Your task to perform on an android device: Search for Mexican restaurants on Maps Image 0: 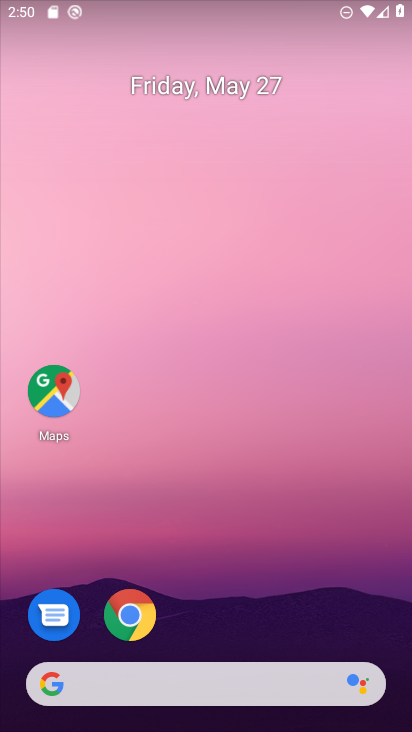
Step 0: click (135, 620)
Your task to perform on an android device: Search for Mexican restaurants on Maps Image 1: 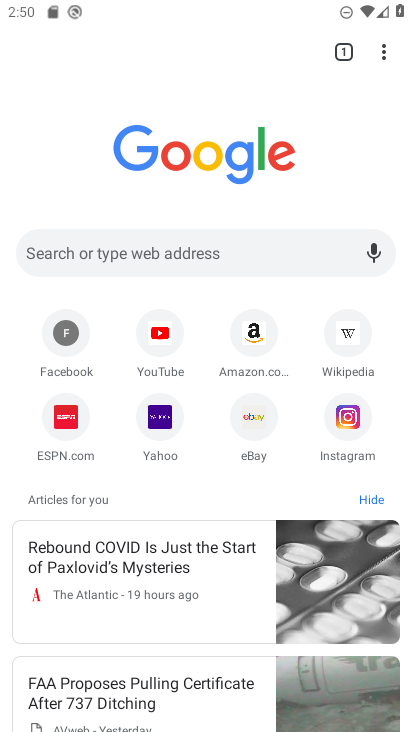
Step 1: press home button
Your task to perform on an android device: Search for Mexican restaurants on Maps Image 2: 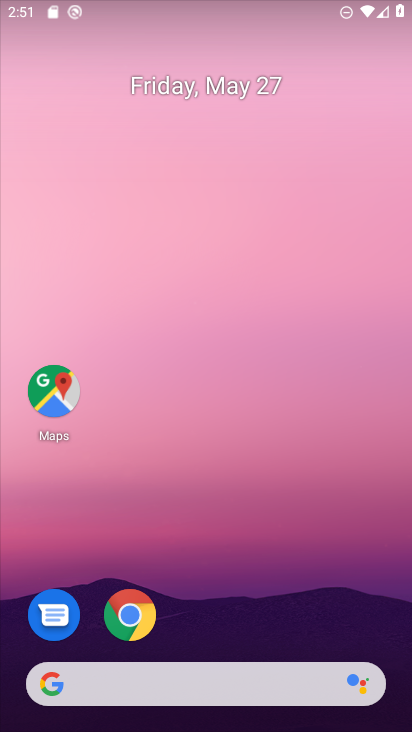
Step 2: click (56, 401)
Your task to perform on an android device: Search for Mexican restaurants on Maps Image 3: 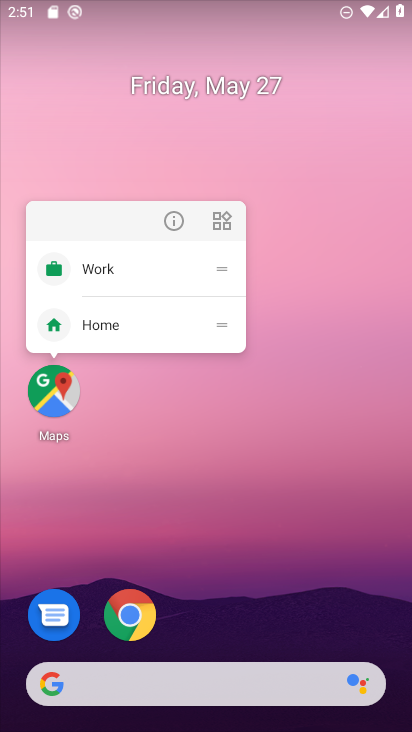
Step 3: click (61, 399)
Your task to perform on an android device: Search for Mexican restaurants on Maps Image 4: 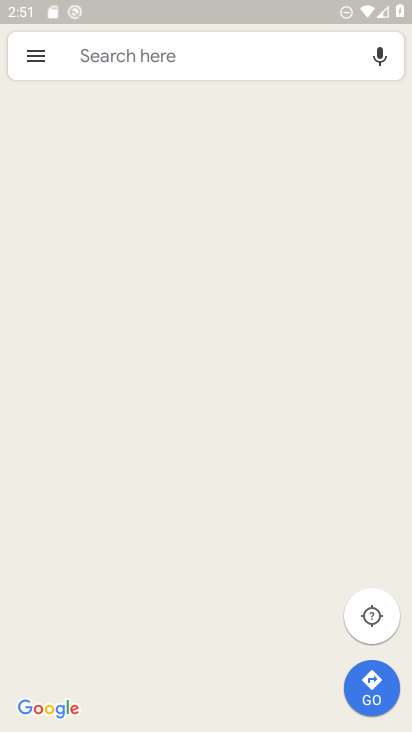
Step 4: click (186, 62)
Your task to perform on an android device: Search for Mexican restaurants on Maps Image 5: 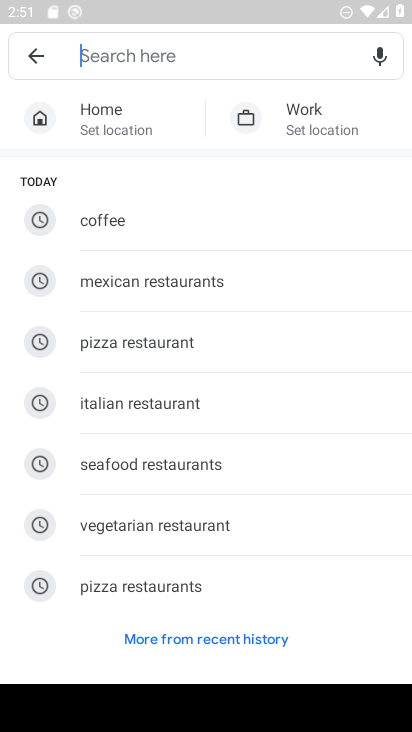
Step 5: type "mexican restaurants"
Your task to perform on an android device: Search for Mexican restaurants on Maps Image 6: 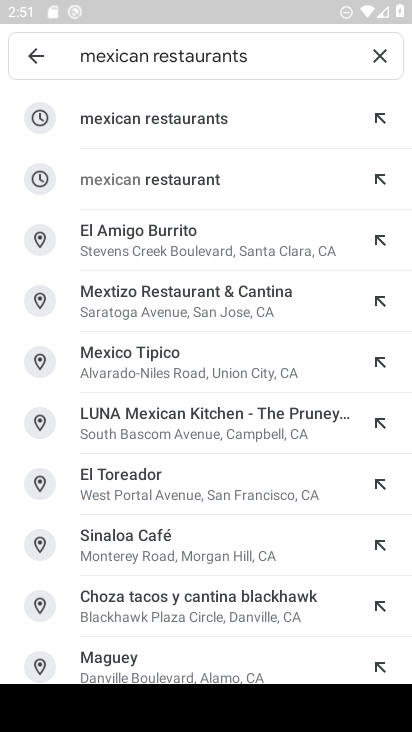
Step 6: click (179, 128)
Your task to perform on an android device: Search for Mexican restaurants on Maps Image 7: 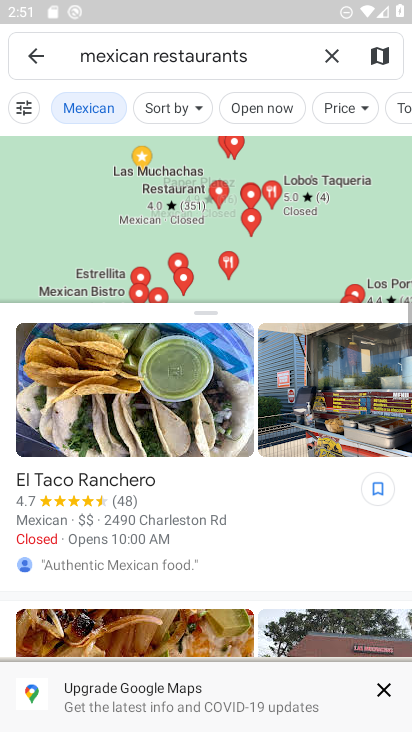
Step 7: task complete